Your task to perform on an android device: make emails show in primary in the gmail app Image 0: 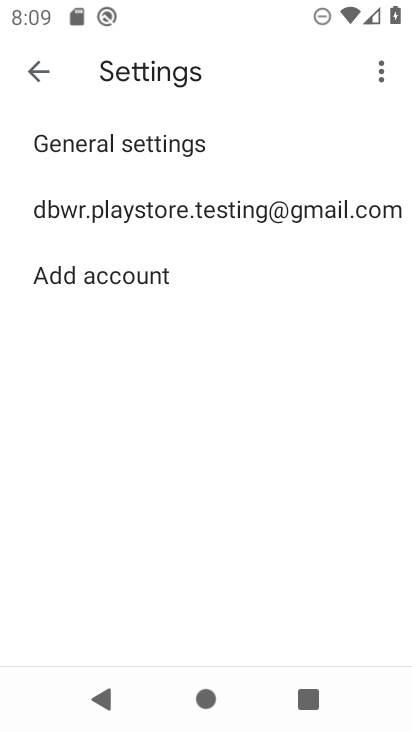
Step 0: click (156, 195)
Your task to perform on an android device: make emails show in primary in the gmail app Image 1: 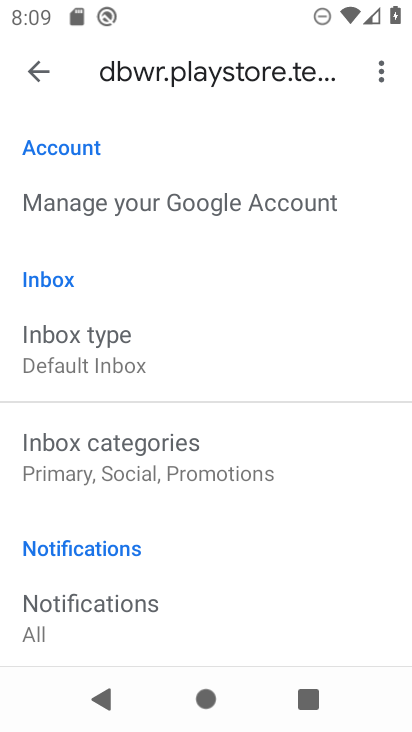
Step 1: click (158, 459)
Your task to perform on an android device: make emails show in primary in the gmail app Image 2: 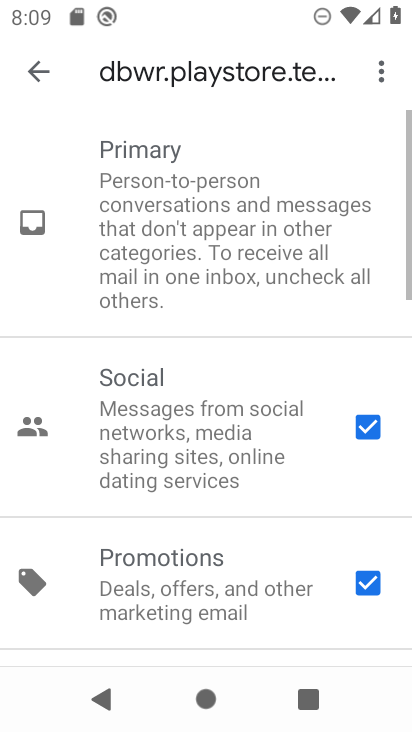
Step 2: click (366, 418)
Your task to perform on an android device: make emails show in primary in the gmail app Image 3: 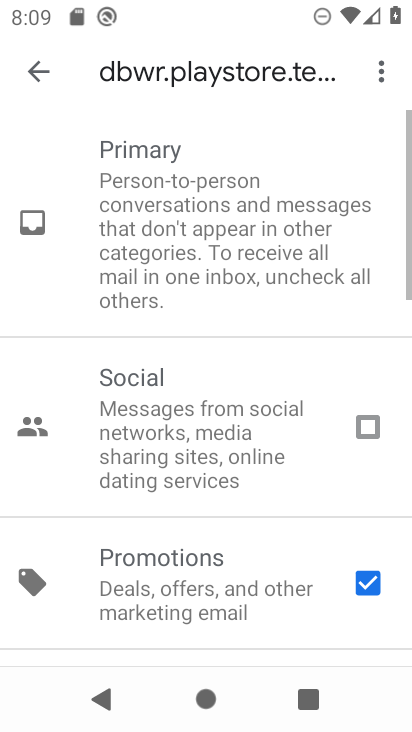
Step 3: click (370, 574)
Your task to perform on an android device: make emails show in primary in the gmail app Image 4: 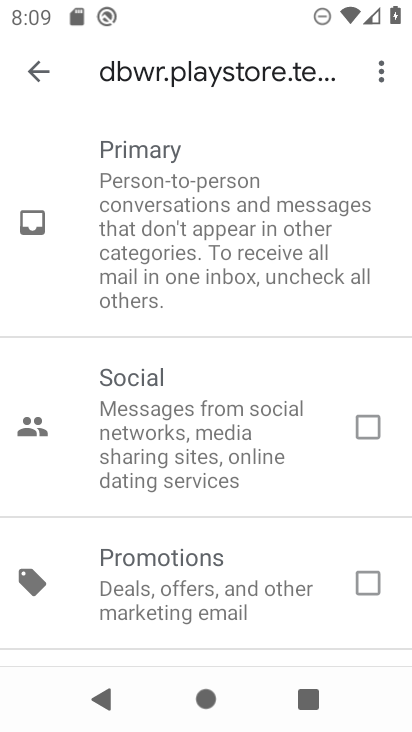
Step 4: click (48, 68)
Your task to perform on an android device: make emails show in primary in the gmail app Image 5: 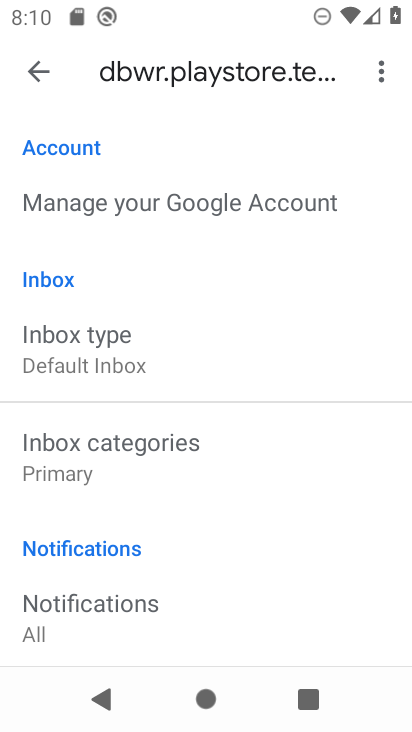
Step 5: task complete